Your task to perform on an android device: turn on translation in the chrome app Image 0: 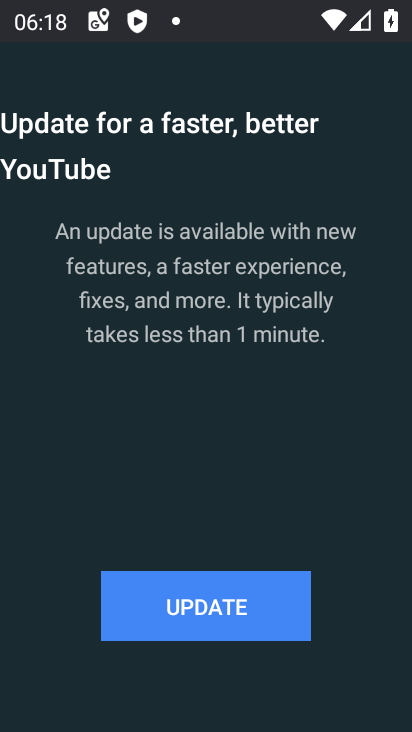
Step 0: press home button
Your task to perform on an android device: turn on translation in the chrome app Image 1: 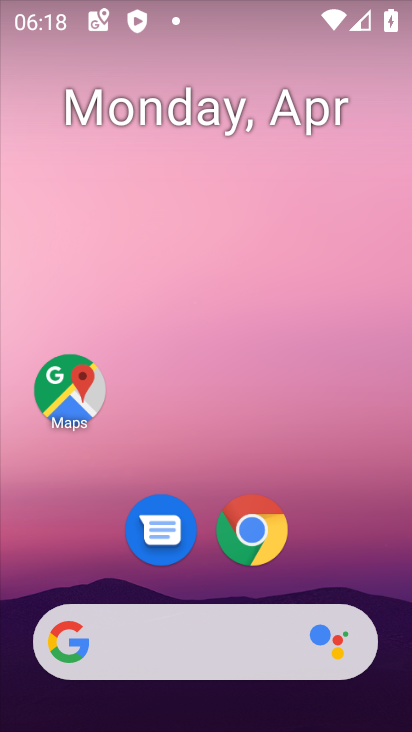
Step 1: click (246, 524)
Your task to perform on an android device: turn on translation in the chrome app Image 2: 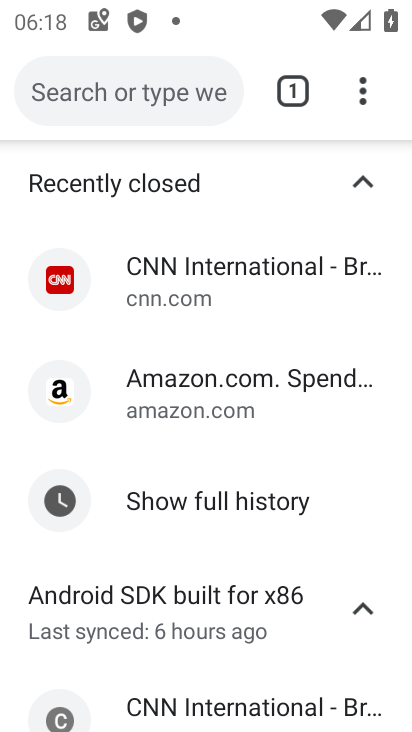
Step 2: click (367, 99)
Your task to perform on an android device: turn on translation in the chrome app Image 3: 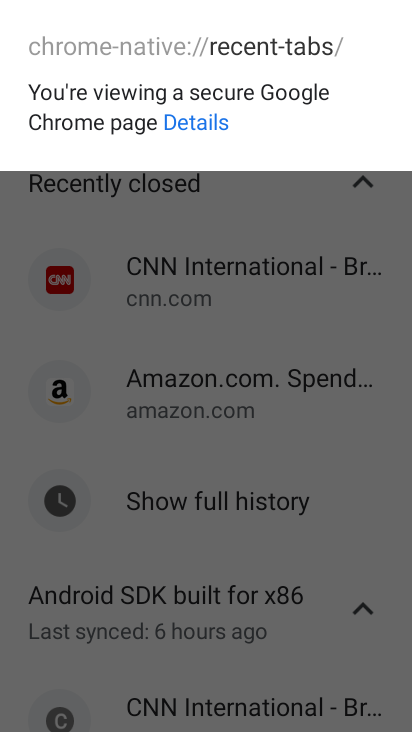
Step 3: click (291, 329)
Your task to perform on an android device: turn on translation in the chrome app Image 4: 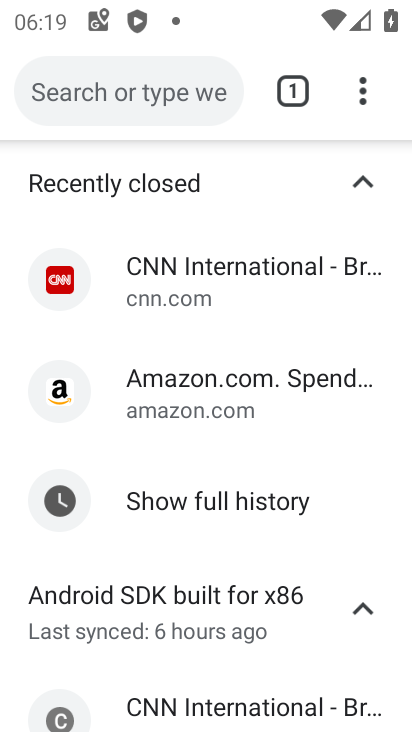
Step 4: click (358, 100)
Your task to perform on an android device: turn on translation in the chrome app Image 5: 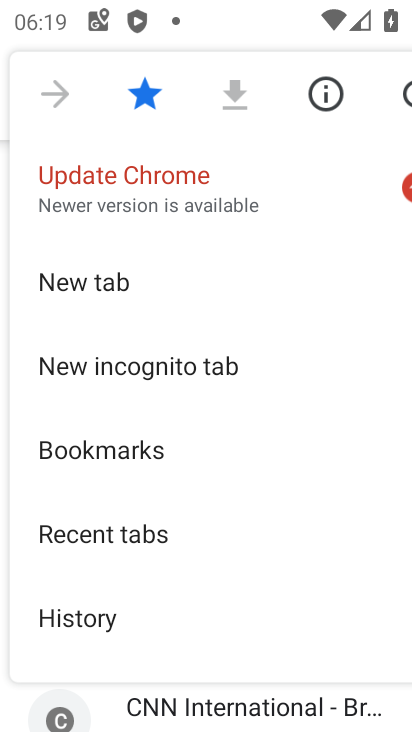
Step 5: drag from (137, 599) to (188, 124)
Your task to perform on an android device: turn on translation in the chrome app Image 6: 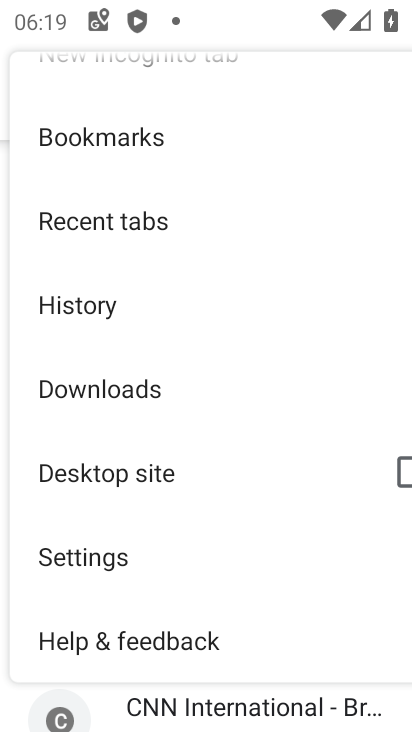
Step 6: click (127, 551)
Your task to perform on an android device: turn on translation in the chrome app Image 7: 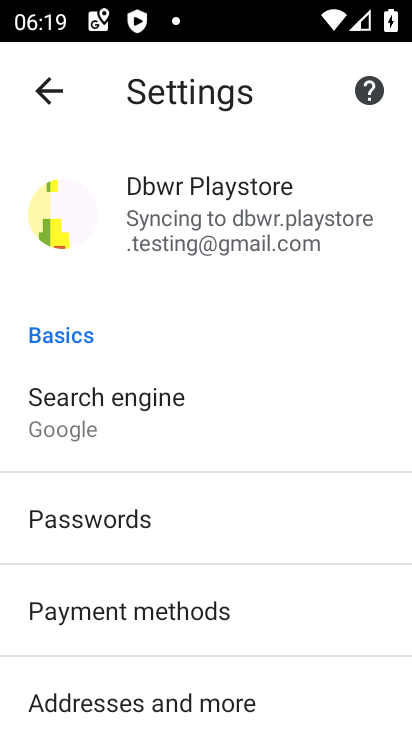
Step 7: drag from (289, 664) to (302, 178)
Your task to perform on an android device: turn on translation in the chrome app Image 8: 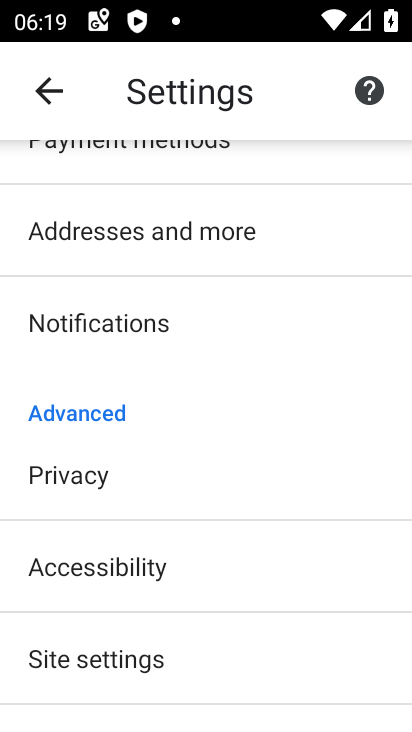
Step 8: drag from (187, 660) to (204, 341)
Your task to perform on an android device: turn on translation in the chrome app Image 9: 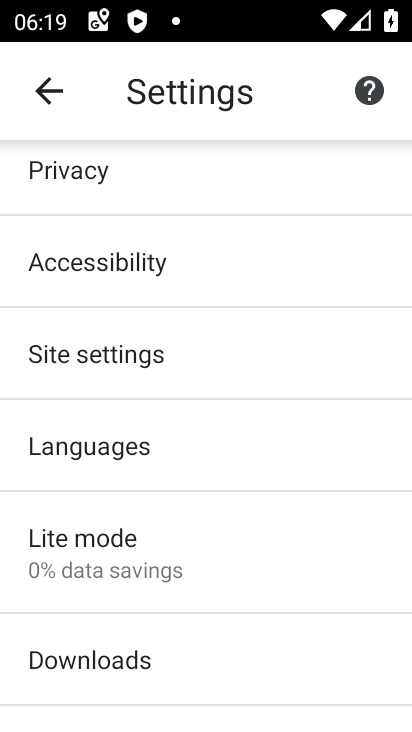
Step 9: click (174, 430)
Your task to perform on an android device: turn on translation in the chrome app Image 10: 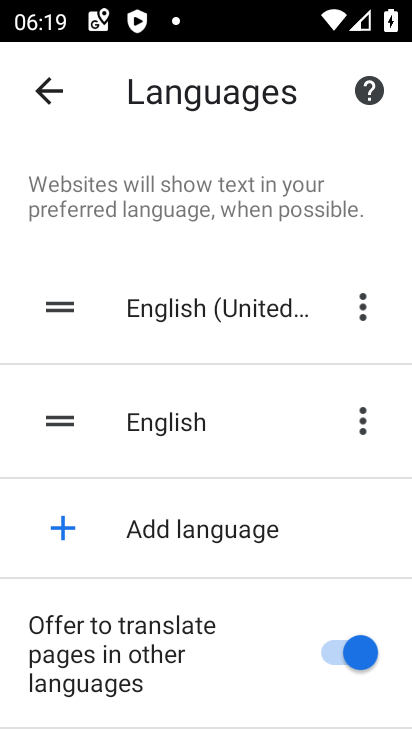
Step 10: task complete